Your task to perform on an android device: turn off picture-in-picture Image 0: 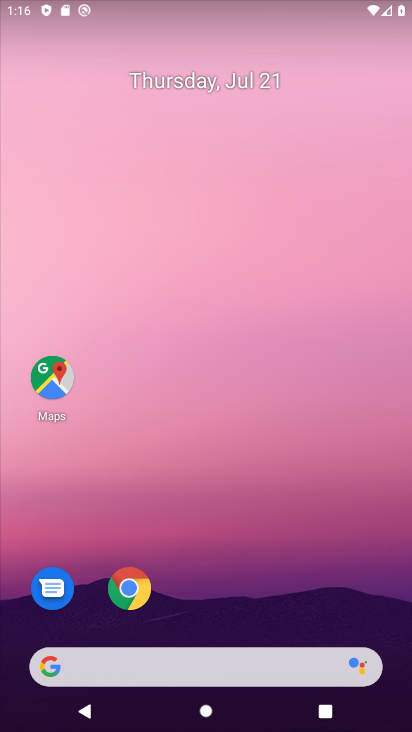
Step 0: drag from (220, 632) to (219, 38)
Your task to perform on an android device: turn off picture-in-picture Image 1: 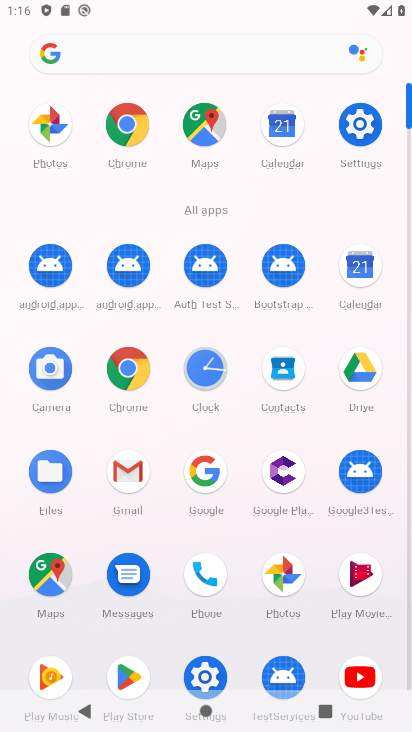
Step 1: click (348, 142)
Your task to perform on an android device: turn off picture-in-picture Image 2: 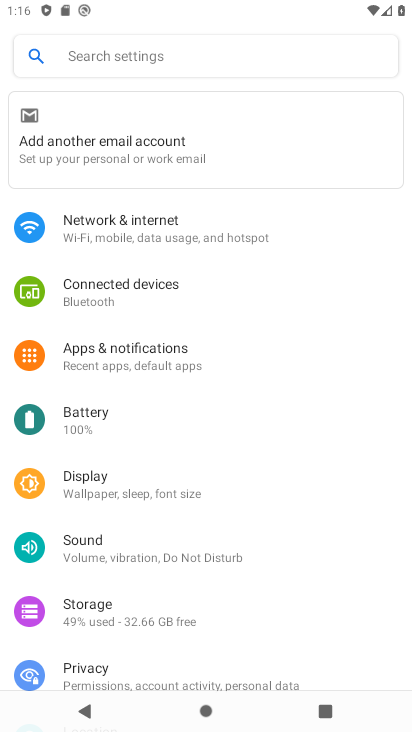
Step 2: click (130, 346)
Your task to perform on an android device: turn off picture-in-picture Image 3: 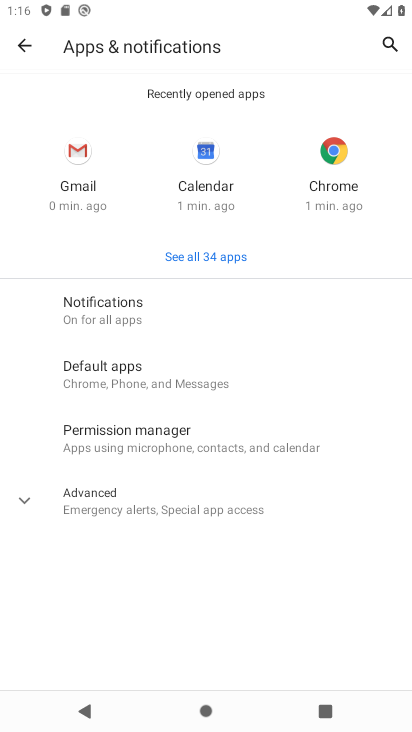
Step 3: click (148, 495)
Your task to perform on an android device: turn off picture-in-picture Image 4: 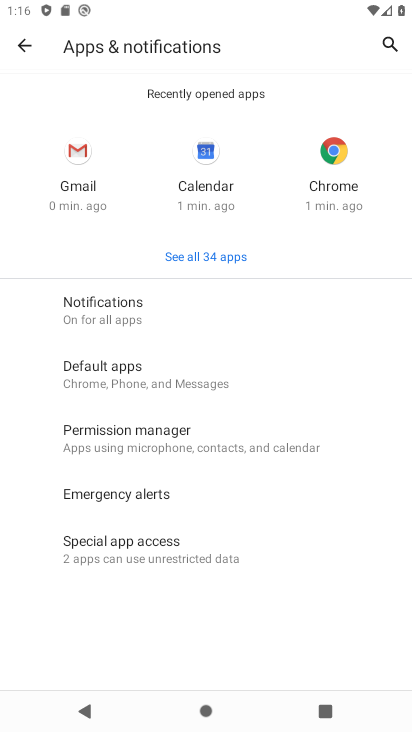
Step 4: click (130, 555)
Your task to perform on an android device: turn off picture-in-picture Image 5: 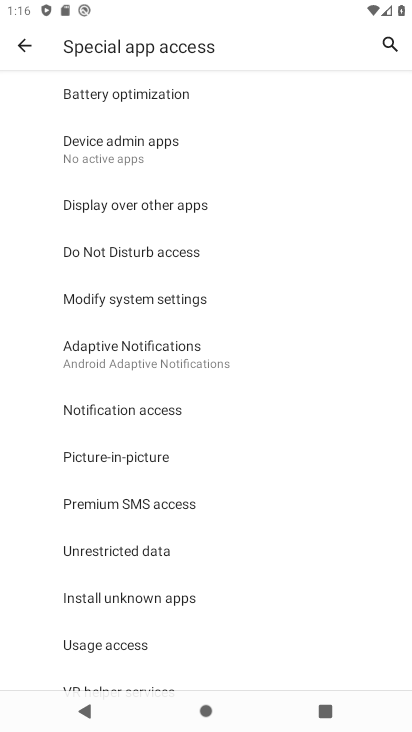
Step 5: click (127, 466)
Your task to perform on an android device: turn off picture-in-picture Image 6: 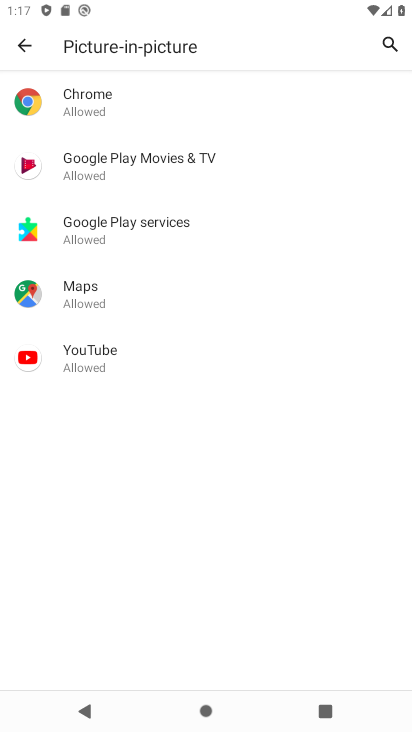
Step 6: task complete